Your task to perform on an android device: open chrome privacy settings Image 0: 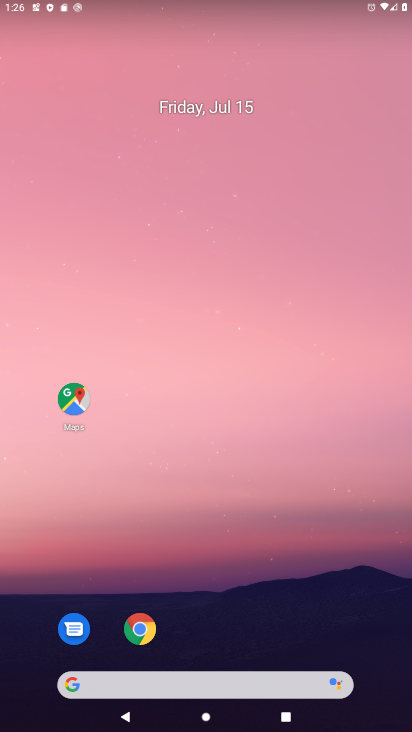
Step 0: drag from (293, 651) to (177, 140)
Your task to perform on an android device: open chrome privacy settings Image 1: 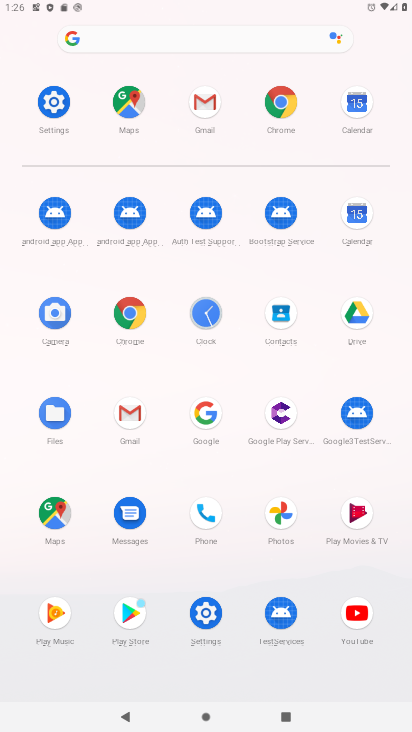
Step 1: click (133, 308)
Your task to perform on an android device: open chrome privacy settings Image 2: 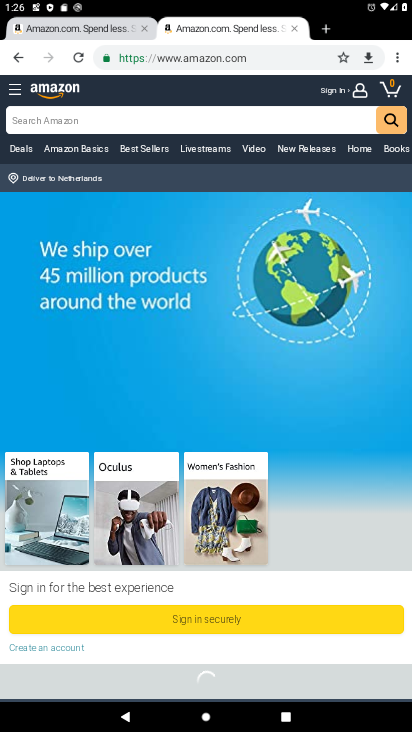
Step 2: drag from (398, 55) to (273, 411)
Your task to perform on an android device: open chrome privacy settings Image 3: 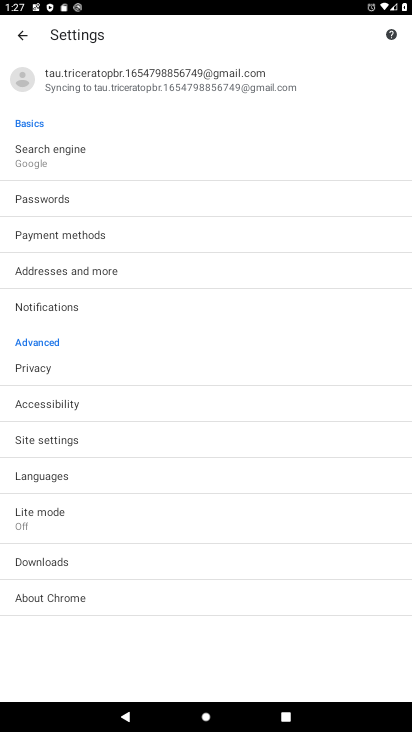
Step 3: click (42, 368)
Your task to perform on an android device: open chrome privacy settings Image 4: 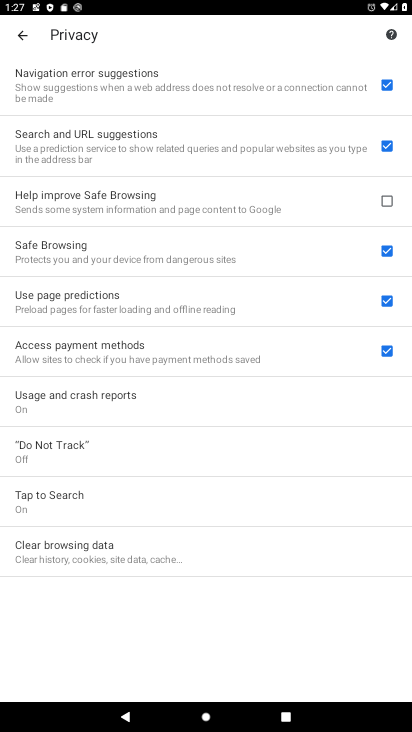
Step 4: task complete